Your task to perform on an android device: turn off improve location accuracy Image 0: 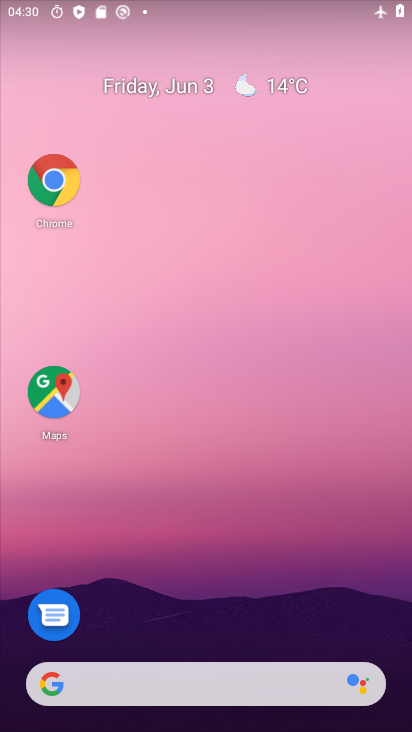
Step 0: click (250, 29)
Your task to perform on an android device: turn off improve location accuracy Image 1: 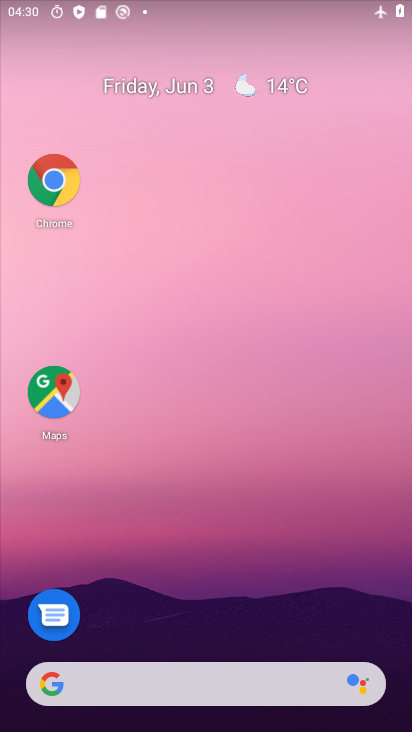
Step 1: drag from (130, 724) to (163, 43)
Your task to perform on an android device: turn off improve location accuracy Image 2: 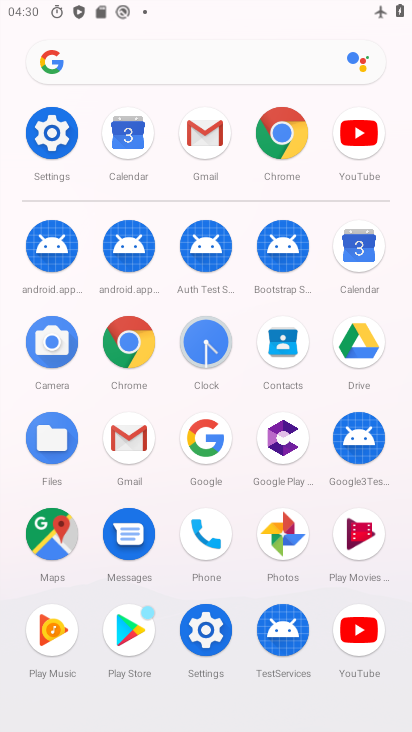
Step 2: click (201, 648)
Your task to perform on an android device: turn off improve location accuracy Image 3: 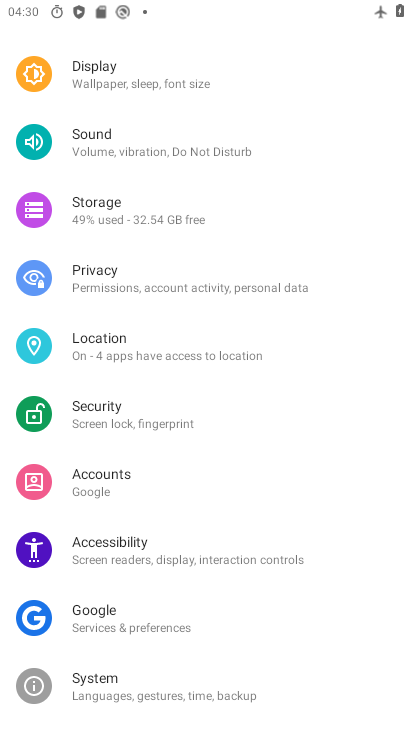
Step 3: click (155, 351)
Your task to perform on an android device: turn off improve location accuracy Image 4: 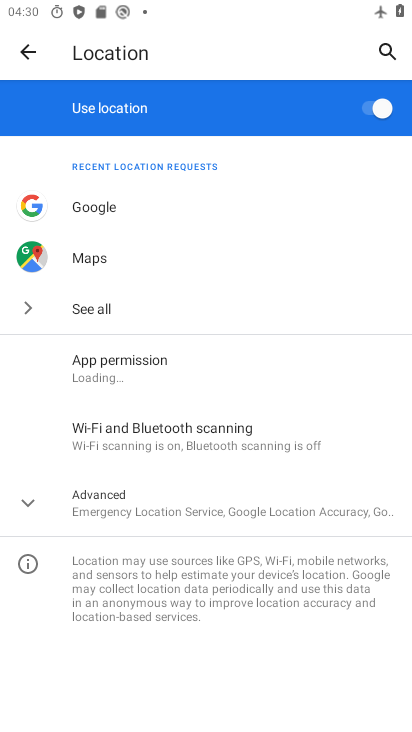
Step 4: click (181, 517)
Your task to perform on an android device: turn off improve location accuracy Image 5: 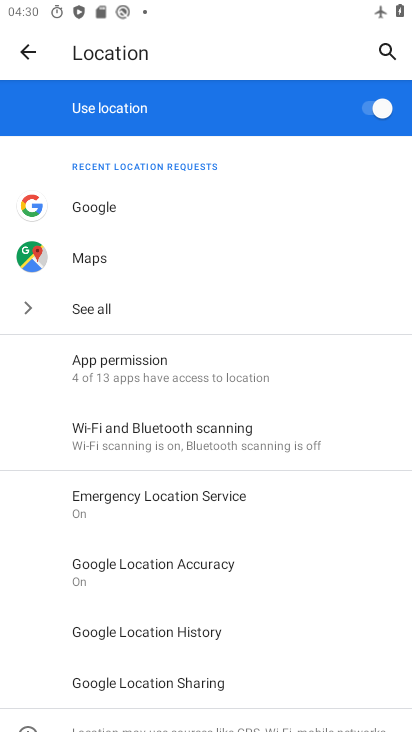
Step 5: click (202, 578)
Your task to perform on an android device: turn off improve location accuracy Image 6: 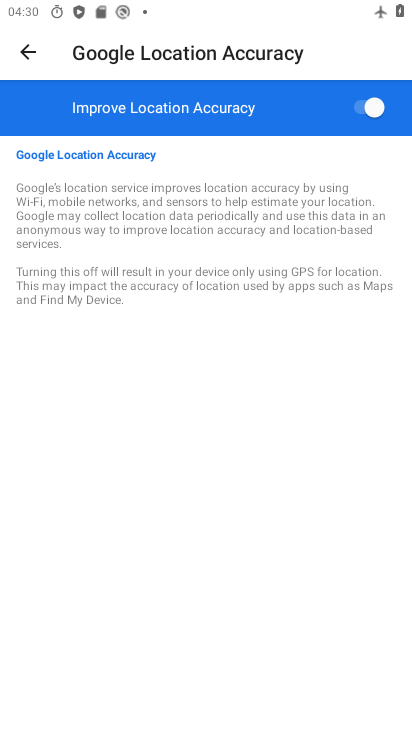
Step 6: click (372, 108)
Your task to perform on an android device: turn off improve location accuracy Image 7: 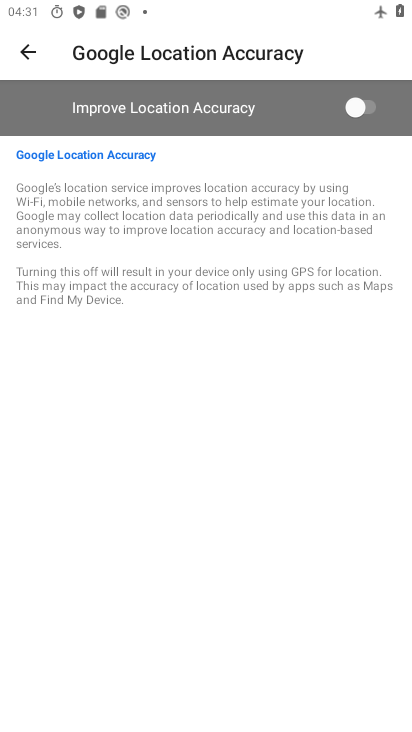
Step 7: task complete